Your task to perform on an android device: see sites visited before in the chrome app Image 0: 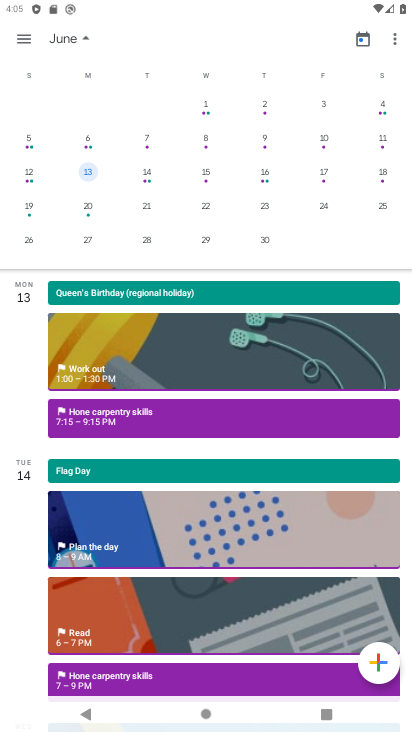
Step 0: press home button
Your task to perform on an android device: see sites visited before in the chrome app Image 1: 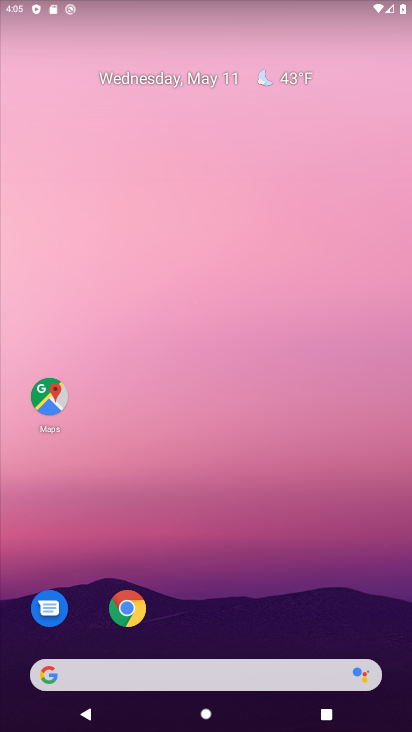
Step 1: click (411, 487)
Your task to perform on an android device: see sites visited before in the chrome app Image 2: 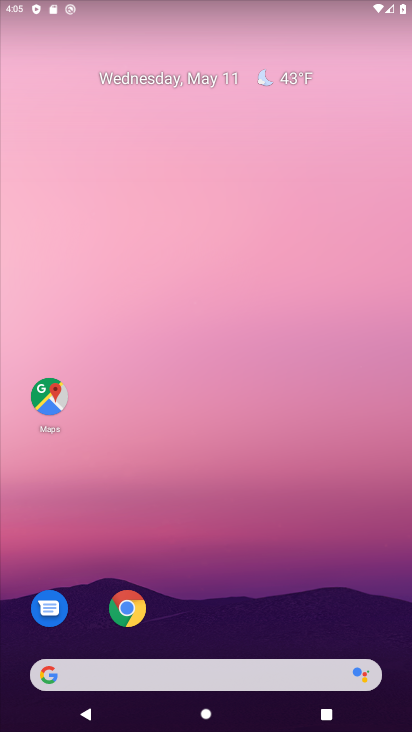
Step 2: click (128, 610)
Your task to perform on an android device: see sites visited before in the chrome app Image 3: 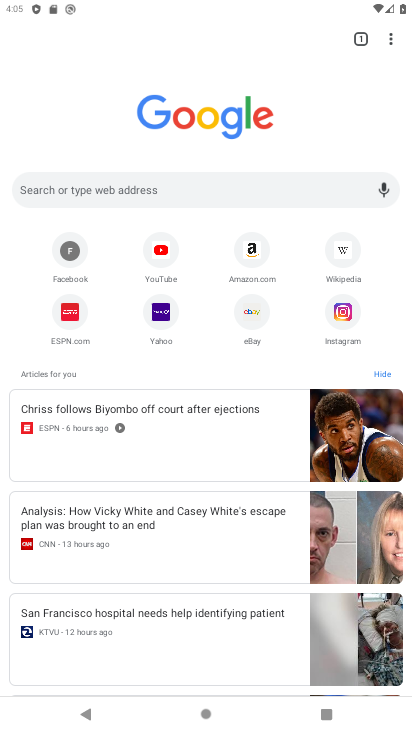
Step 3: click (390, 40)
Your task to perform on an android device: see sites visited before in the chrome app Image 4: 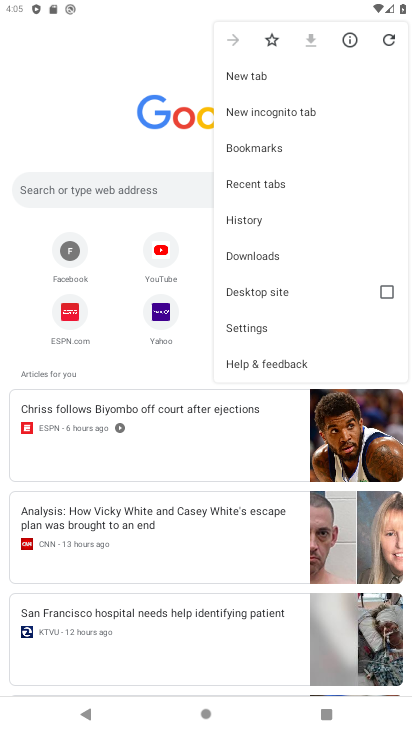
Step 4: click (248, 218)
Your task to perform on an android device: see sites visited before in the chrome app Image 5: 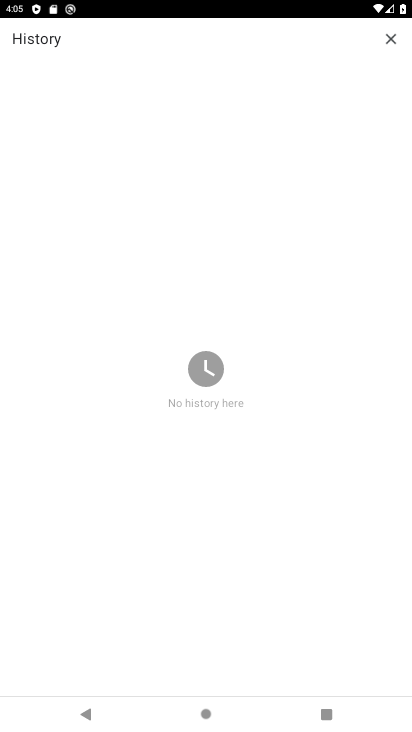
Step 5: task complete